Your task to perform on an android device: Go to Google maps Image 0: 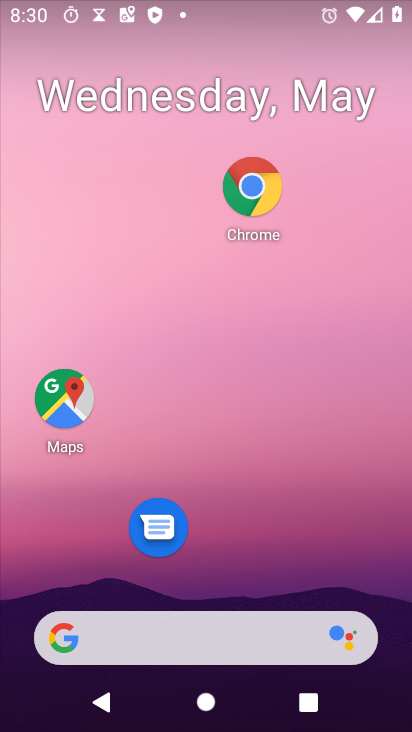
Step 0: click (77, 405)
Your task to perform on an android device: Go to Google maps Image 1: 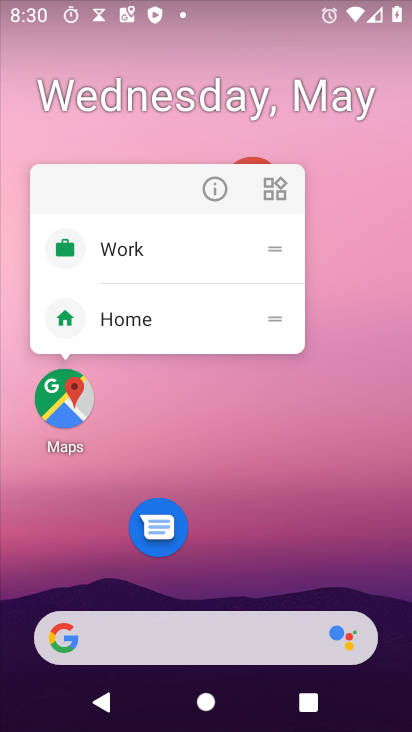
Step 1: drag from (278, 530) to (297, 61)
Your task to perform on an android device: Go to Google maps Image 2: 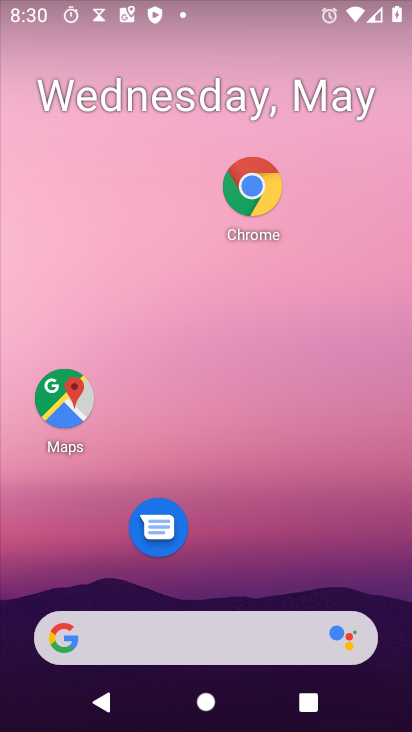
Step 2: drag from (329, 510) to (329, 82)
Your task to perform on an android device: Go to Google maps Image 3: 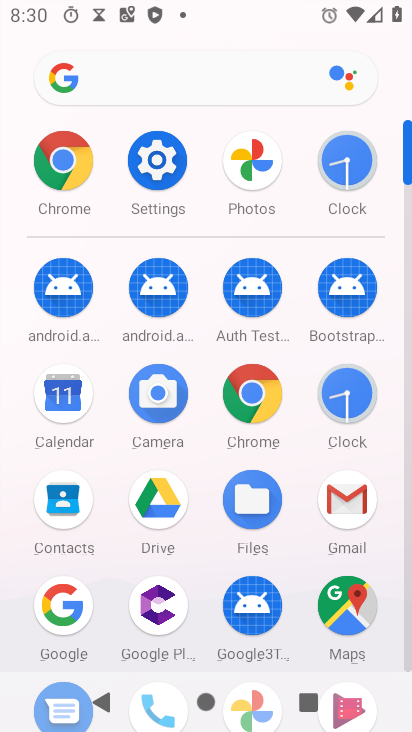
Step 3: click (348, 591)
Your task to perform on an android device: Go to Google maps Image 4: 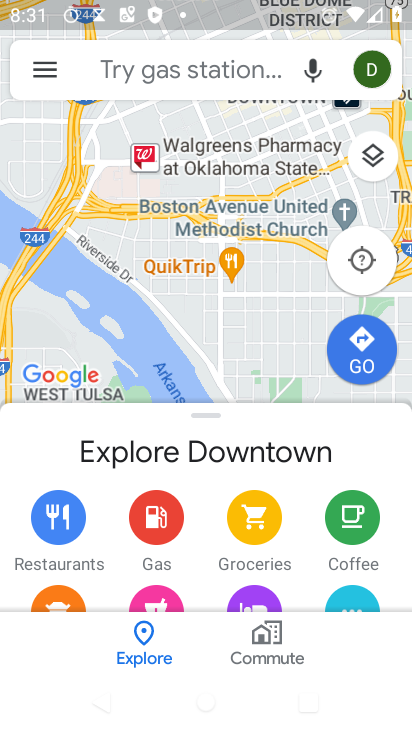
Step 4: task complete